Your task to perform on an android device: check the backup settings in the google photos Image 0: 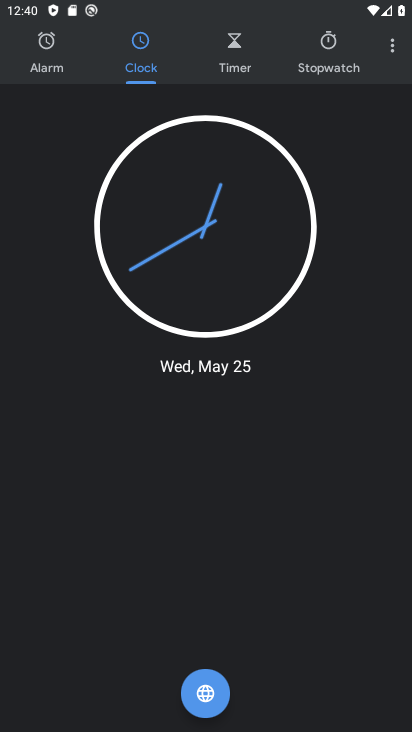
Step 0: press back button
Your task to perform on an android device: check the backup settings in the google photos Image 1: 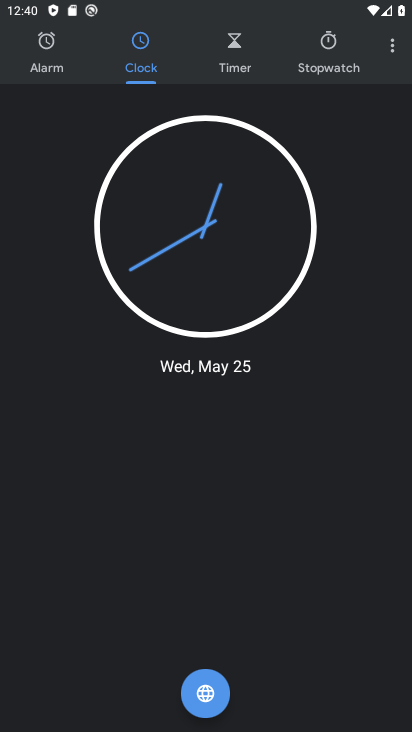
Step 1: press back button
Your task to perform on an android device: check the backup settings in the google photos Image 2: 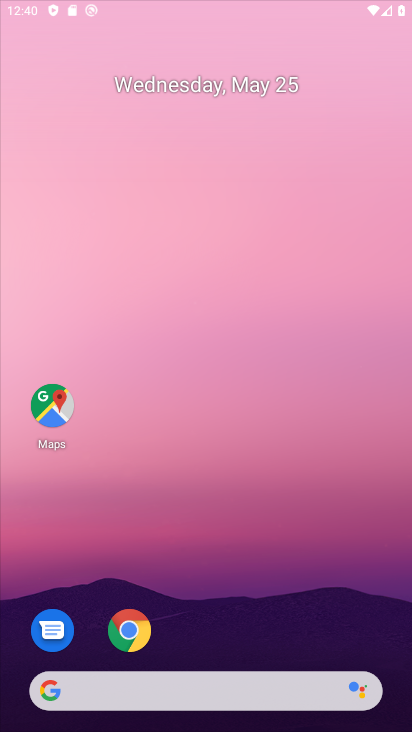
Step 2: press back button
Your task to perform on an android device: check the backup settings in the google photos Image 3: 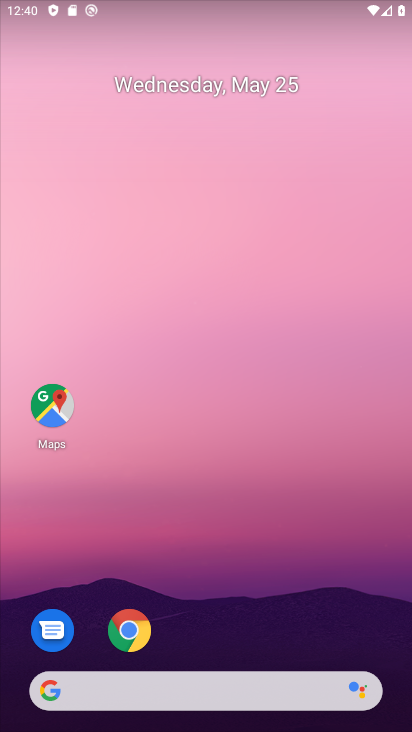
Step 3: press back button
Your task to perform on an android device: check the backup settings in the google photos Image 4: 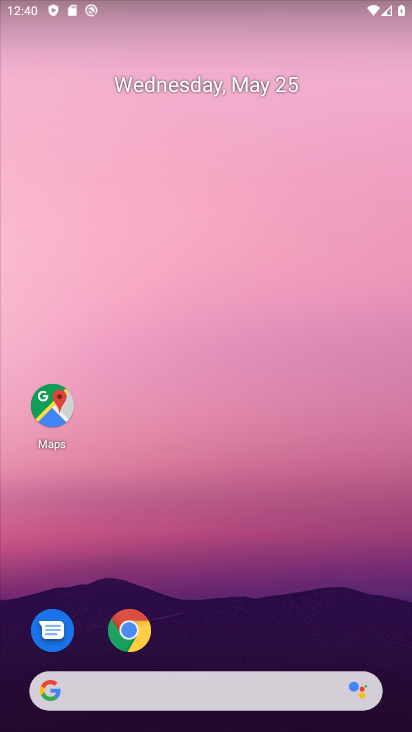
Step 4: drag from (319, 624) to (263, 47)
Your task to perform on an android device: check the backup settings in the google photos Image 5: 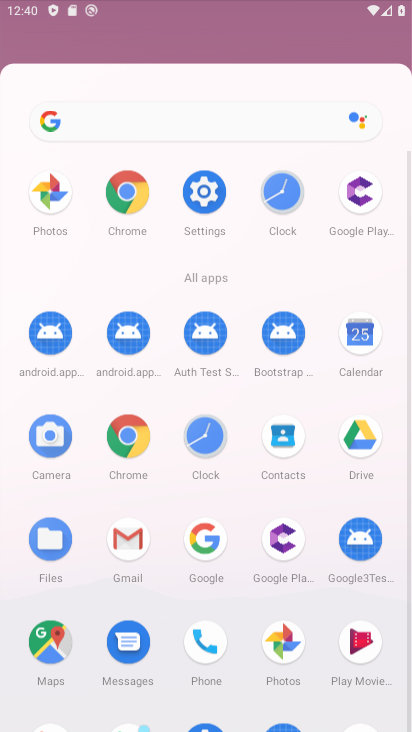
Step 5: drag from (257, 527) to (228, 5)
Your task to perform on an android device: check the backup settings in the google photos Image 6: 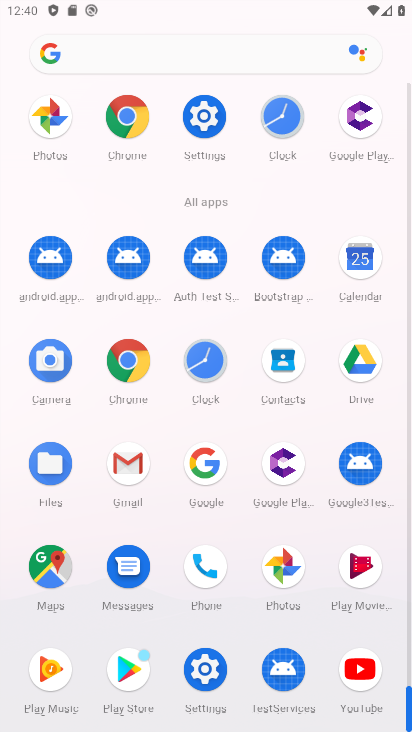
Step 6: click (277, 575)
Your task to perform on an android device: check the backup settings in the google photos Image 7: 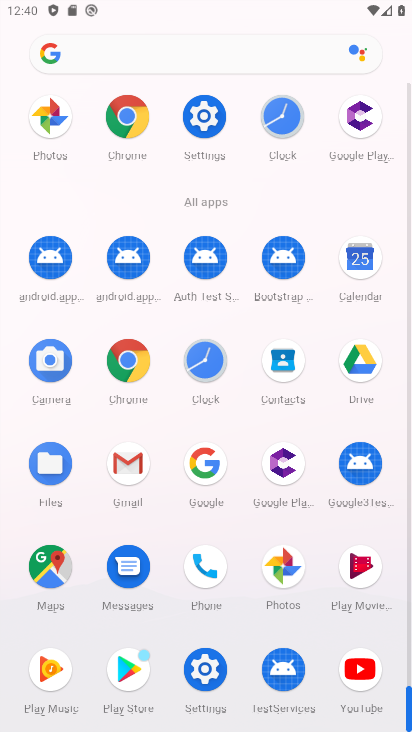
Step 7: click (278, 574)
Your task to perform on an android device: check the backup settings in the google photos Image 8: 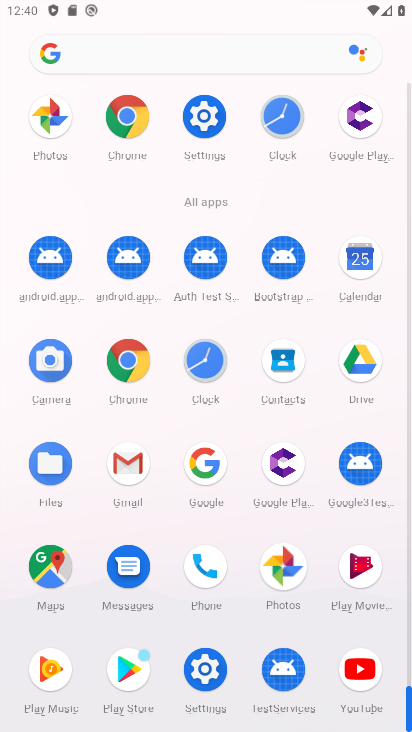
Step 8: click (279, 574)
Your task to perform on an android device: check the backup settings in the google photos Image 9: 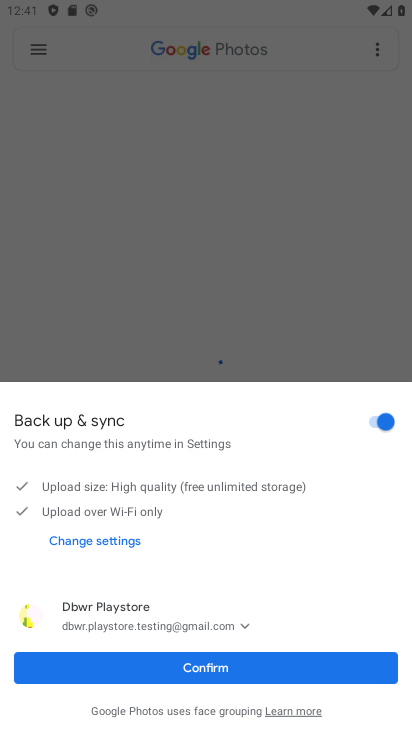
Step 9: task complete